Your task to perform on an android device: Go to eBay Image 0: 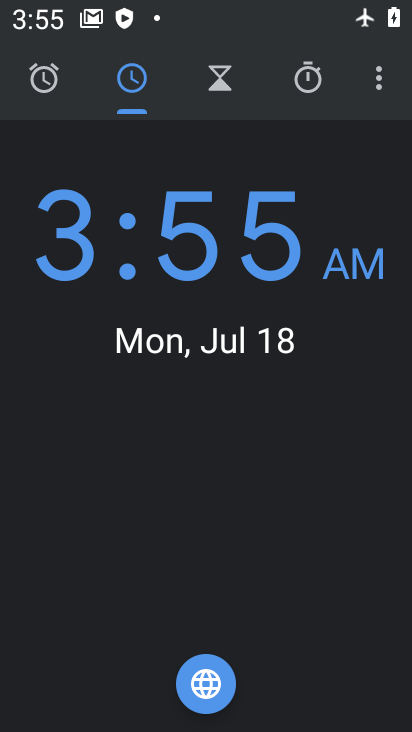
Step 0: press back button
Your task to perform on an android device: Go to eBay Image 1: 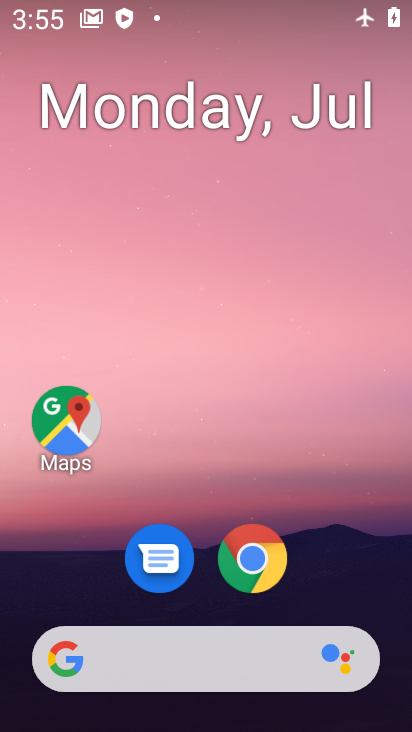
Step 1: drag from (82, 595) to (241, 3)
Your task to perform on an android device: Go to eBay Image 2: 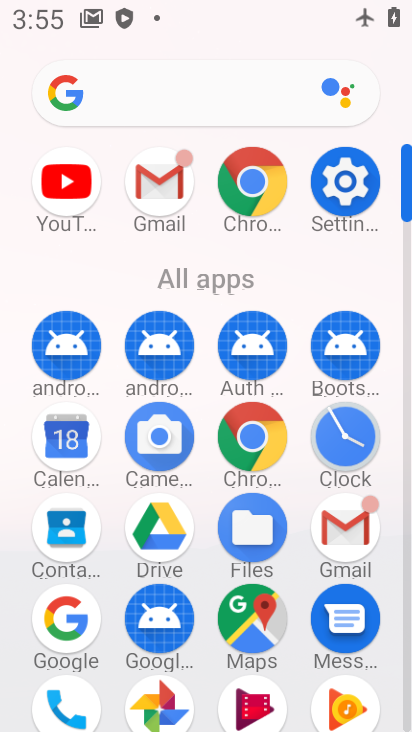
Step 2: click (251, 190)
Your task to perform on an android device: Go to eBay Image 3: 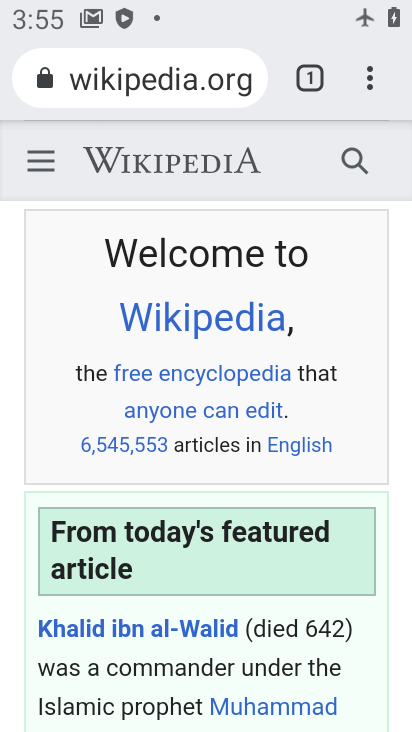
Step 3: click (319, 67)
Your task to perform on an android device: Go to eBay Image 4: 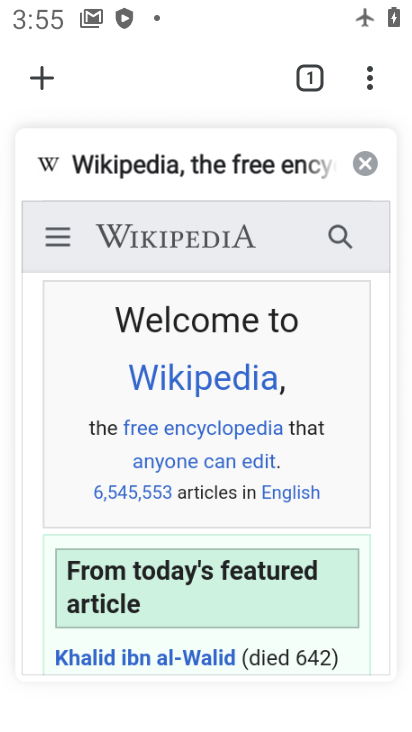
Step 4: click (42, 68)
Your task to perform on an android device: Go to eBay Image 5: 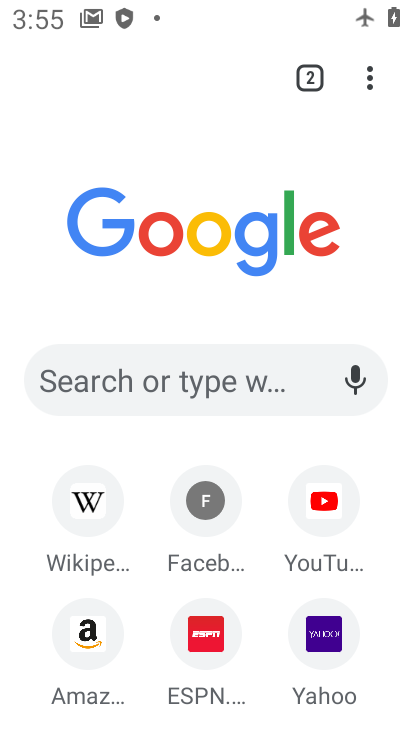
Step 5: click (132, 399)
Your task to perform on an android device: Go to eBay Image 6: 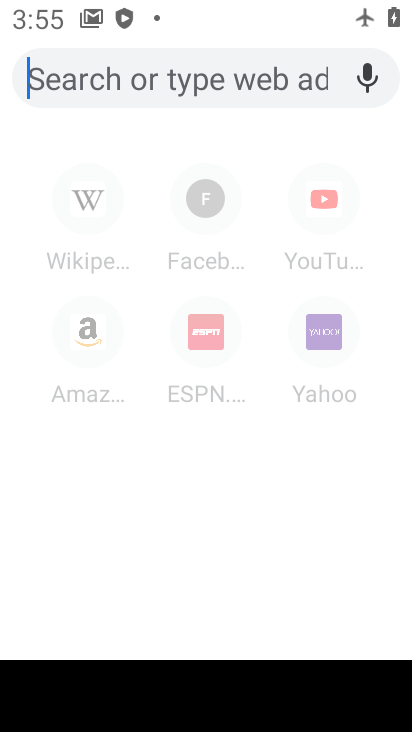
Step 6: type "ebay"
Your task to perform on an android device: Go to eBay Image 7: 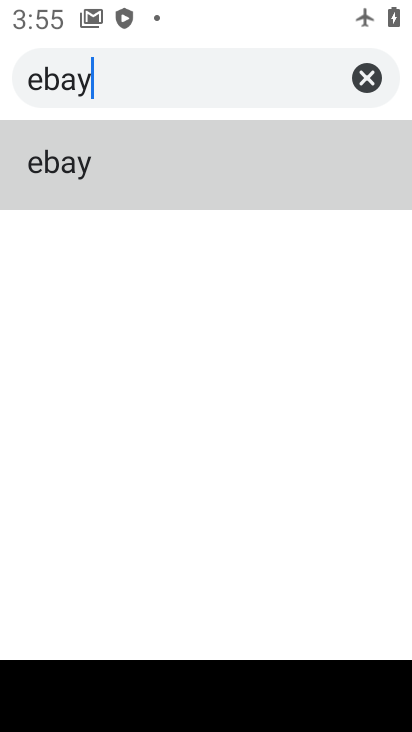
Step 7: drag from (354, 12) to (203, 648)
Your task to perform on an android device: Go to eBay Image 8: 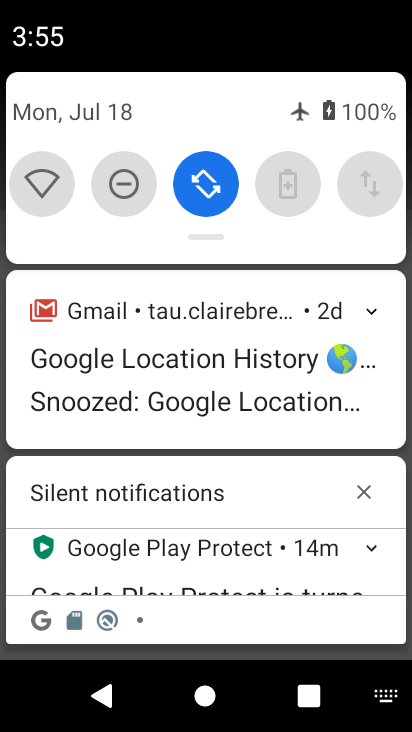
Step 8: drag from (231, 198) to (160, 653)
Your task to perform on an android device: Go to eBay Image 9: 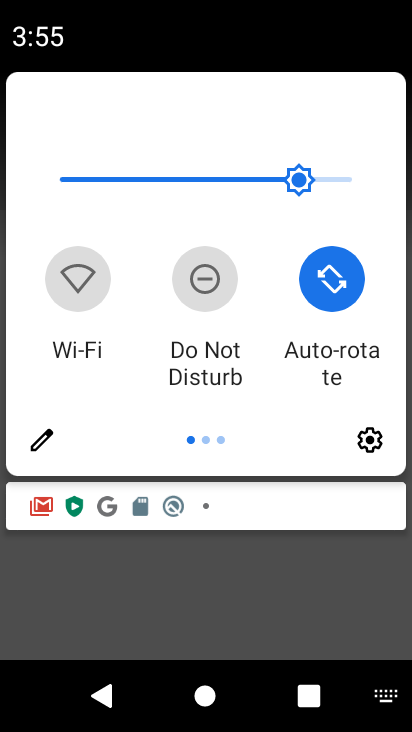
Step 9: drag from (372, 276) to (41, 241)
Your task to perform on an android device: Go to eBay Image 10: 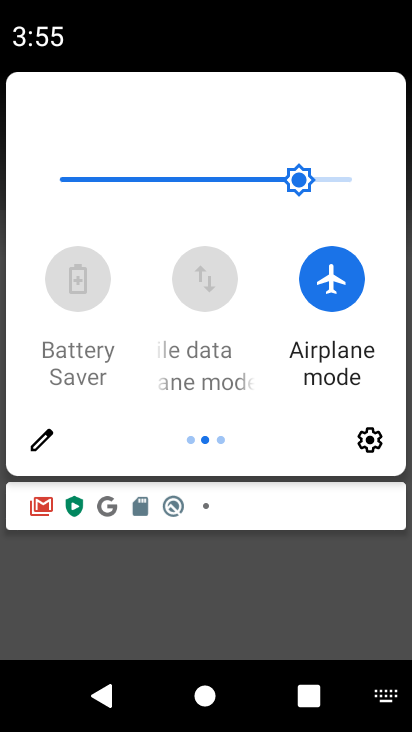
Step 10: click (341, 266)
Your task to perform on an android device: Go to eBay Image 11: 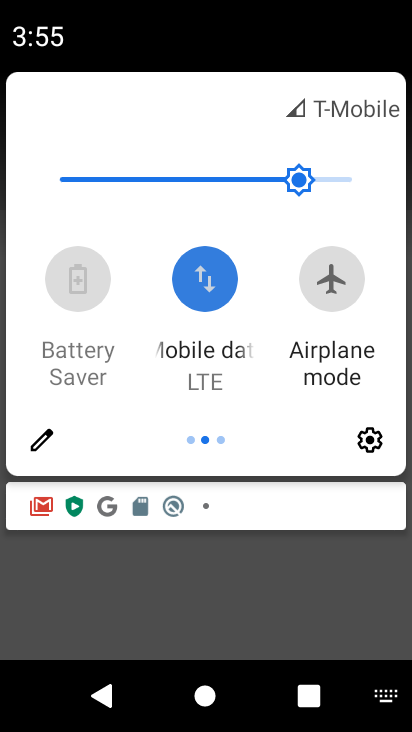
Step 11: click (193, 588)
Your task to perform on an android device: Go to eBay Image 12: 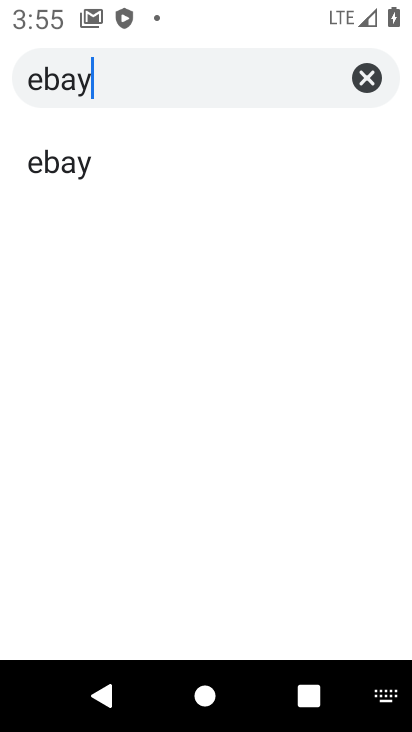
Step 12: click (60, 155)
Your task to perform on an android device: Go to eBay Image 13: 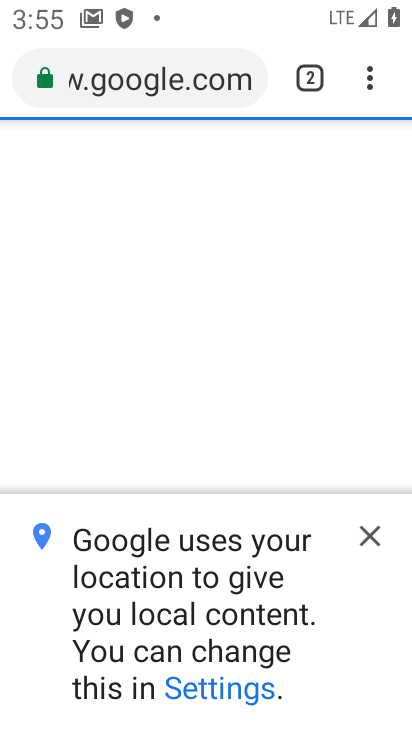
Step 13: click (353, 542)
Your task to perform on an android device: Go to eBay Image 14: 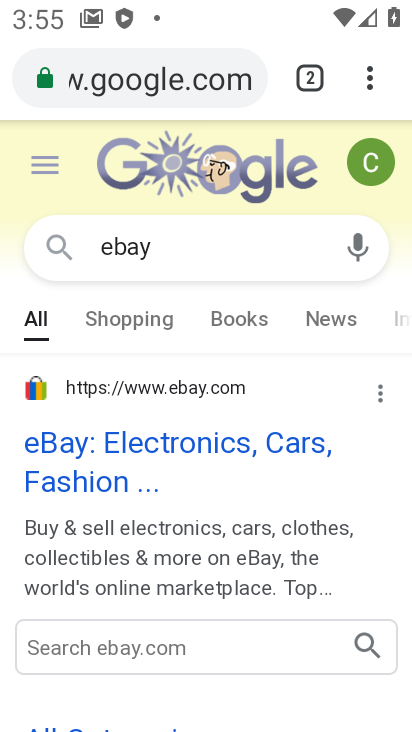
Step 14: click (129, 454)
Your task to perform on an android device: Go to eBay Image 15: 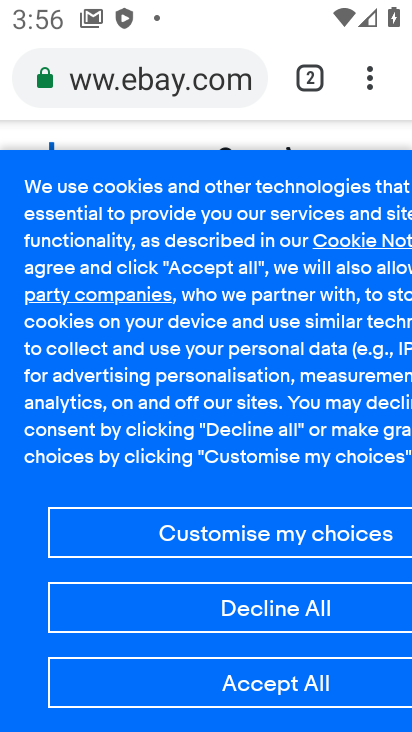
Step 15: task complete